Your task to perform on an android device: turn on the 12-hour format for clock Image 0: 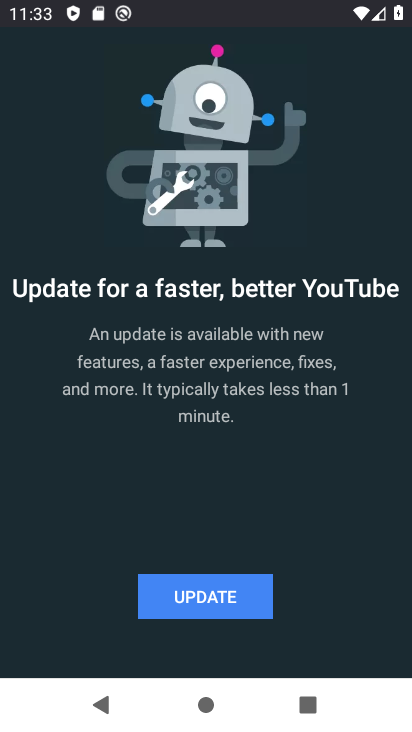
Step 0: press back button
Your task to perform on an android device: turn on the 12-hour format for clock Image 1: 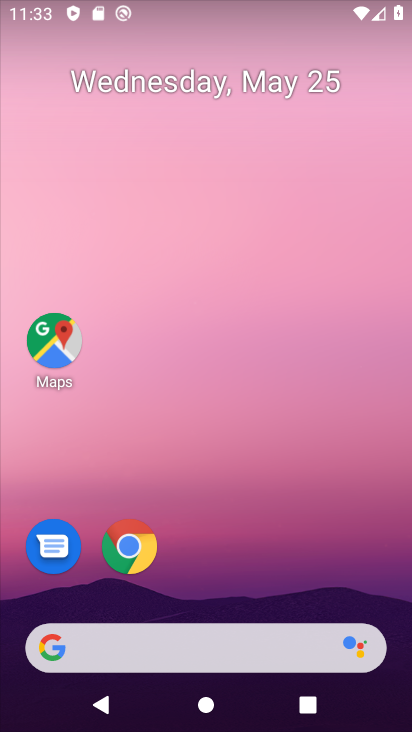
Step 1: drag from (267, 571) to (251, 0)
Your task to perform on an android device: turn on the 12-hour format for clock Image 2: 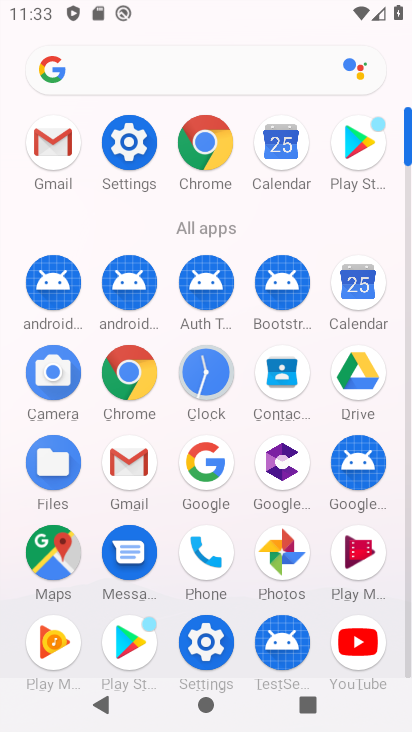
Step 2: click (207, 373)
Your task to perform on an android device: turn on the 12-hour format for clock Image 3: 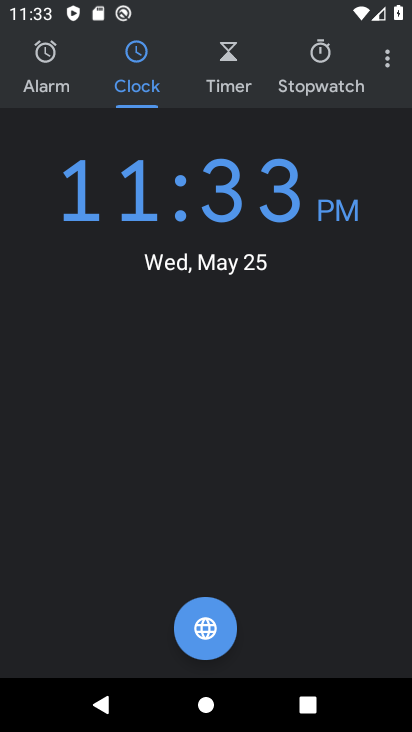
Step 3: click (376, 56)
Your task to perform on an android device: turn on the 12-hour format for clock Image 4: 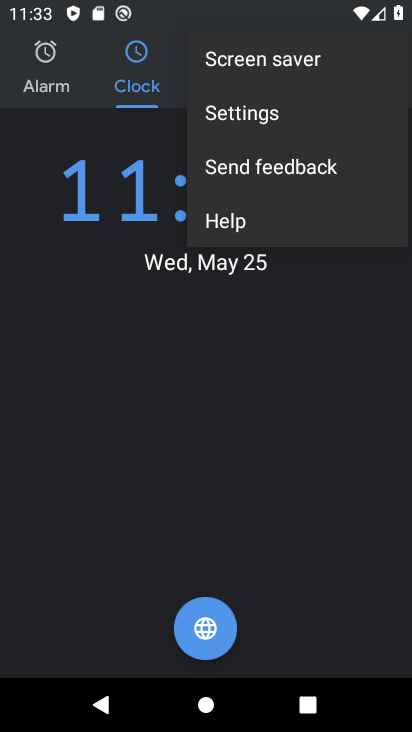
Step 4: click (315, 111)
Your task to perform on an android device: turn on the 12-hour format for clock Image 5: 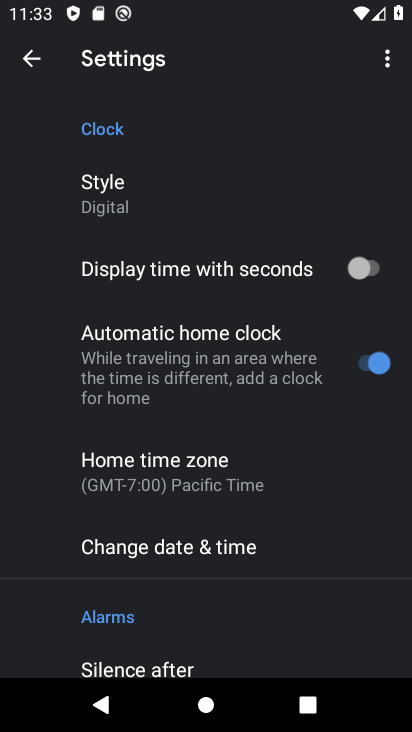
Step 5: click (179, 555)
Your task to perform on an android device: turn on the 12-hour format for clock Image 6: 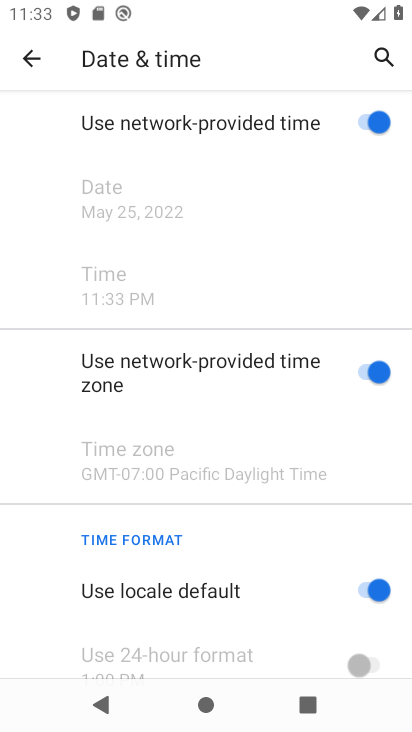
Step 6: task complete